Your task to perform on an android device: What's the weather? Image 0: 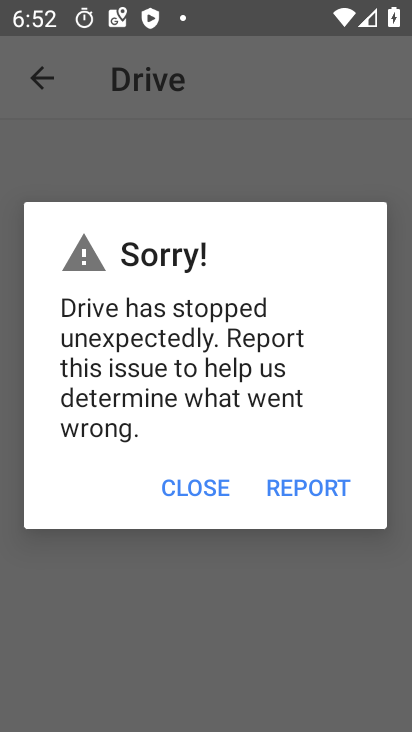
Step 0: press home button
Your task to perform on an android device: What's the weather? Image 1: 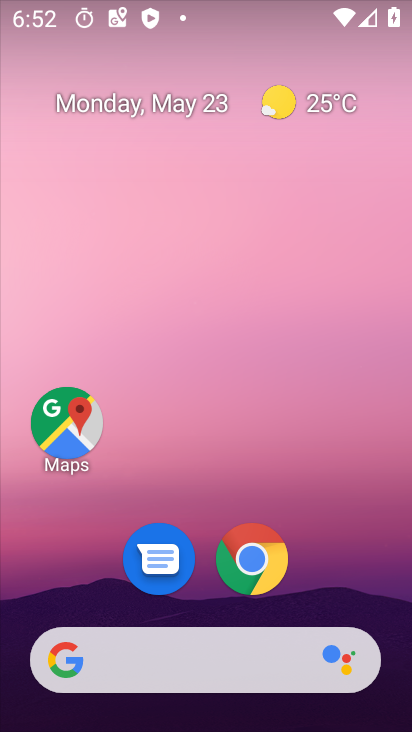
Step 1: drag from (391, 645) to (283, 11)
Your task to perform on an android device: What's the weather? Image 2: 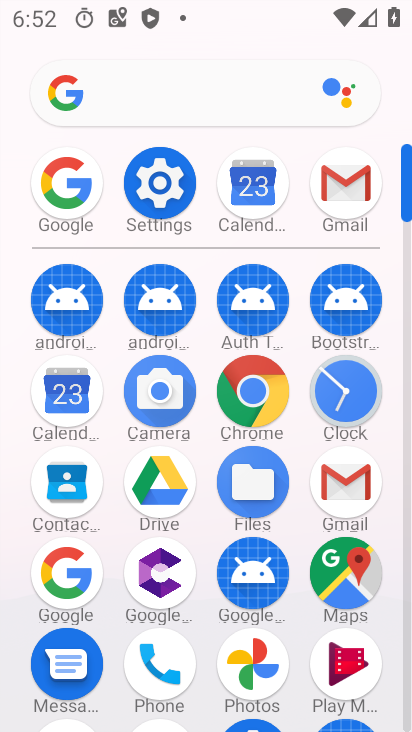
Step 2: click (69, 567)
Your task to perform on an android device: What's the weather? Image 3: 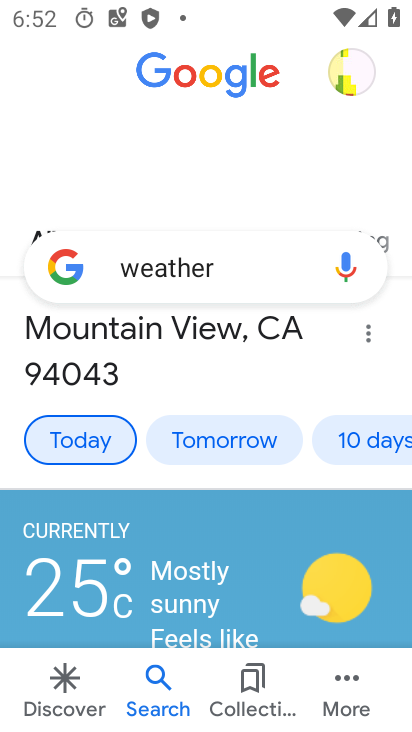
Step 3: task complete